Your task to perform on an android device: star an email in the gmail app Image 0: 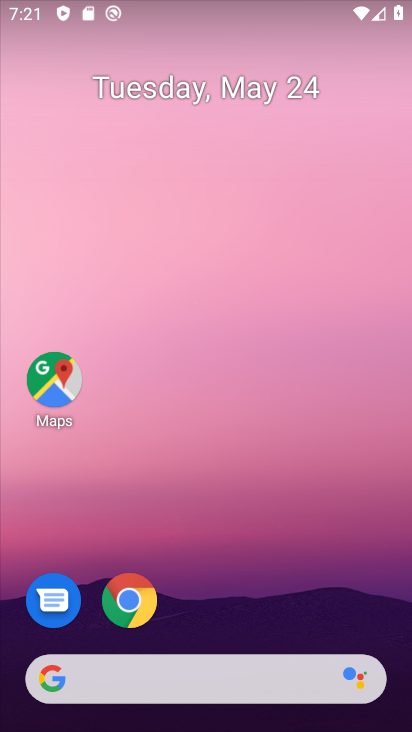
Step 0: drag from (193, 621) to (261, 121)
Your task to perform on an android device: star an email in the gmail app Image 1: 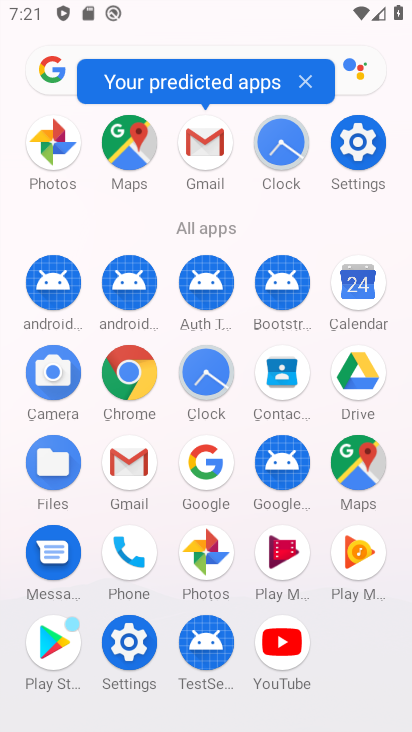
Step 1: click (130, 469)
Your task to perform on an android device: star an email in the gmail app Image 2: 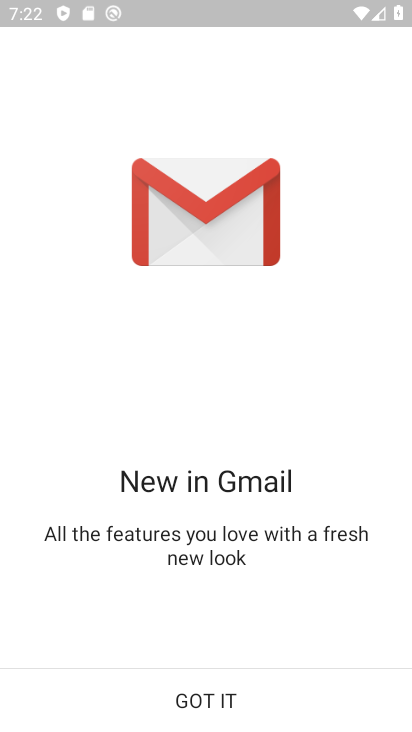
Step 2: click (198, 683)
Your task to perform on an android device: star an email in the gmail app Image 3: 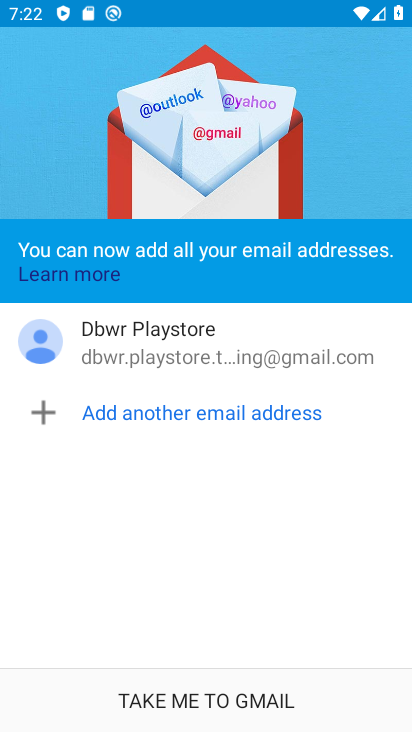
Step 3: click (203, 690)
Your task to perform on an android device: star an email in the gmail app Image 4: 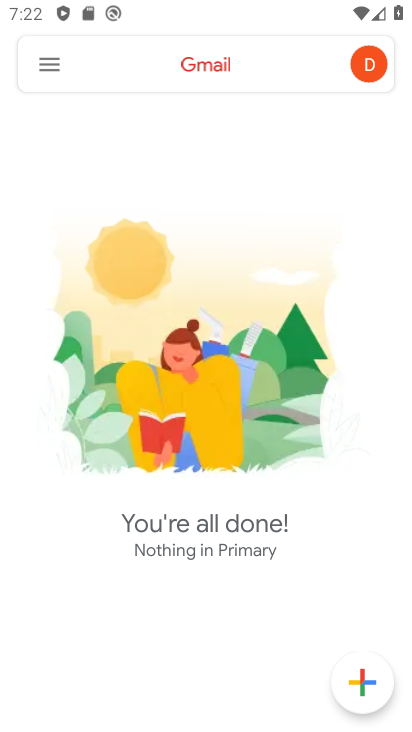
Step 4: click (47, 69)
Your task to perform on an android device: star an email in the gmail app Image 5: 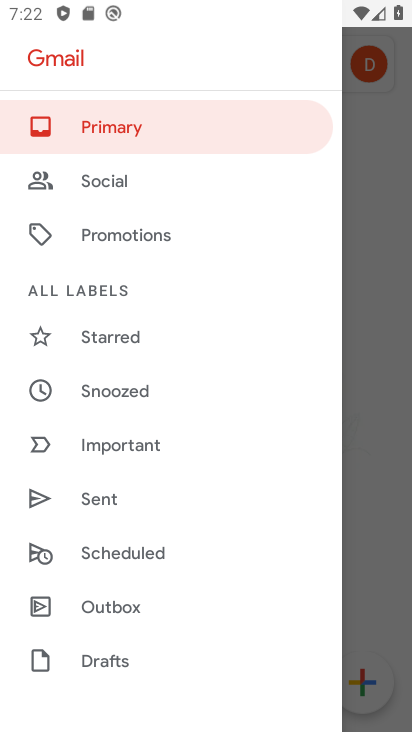
Step 5: drag from (160, 632) to (263, 183)
Your task to perform on an android device: star an email in the gmail app Image 6: 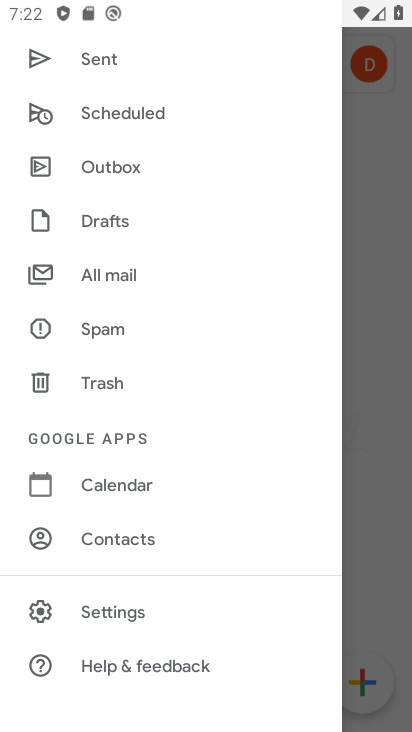
Step 6: click (119, 270)
Your task to perform on an android device: star an email in the gmail app Image 7: 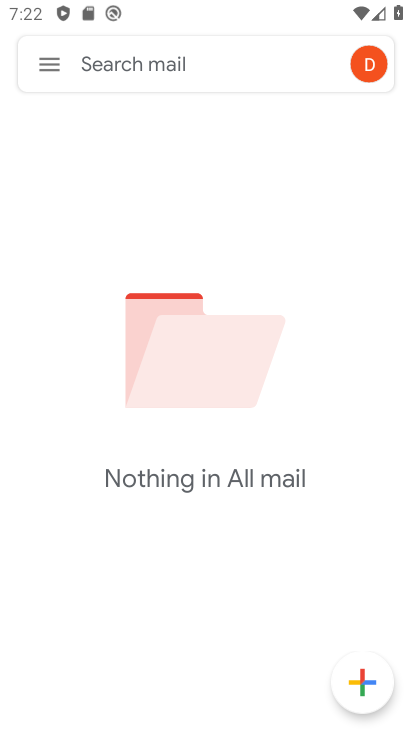
Step 7: task complete